Your task to perform on an android device: change timer sound Image 0: 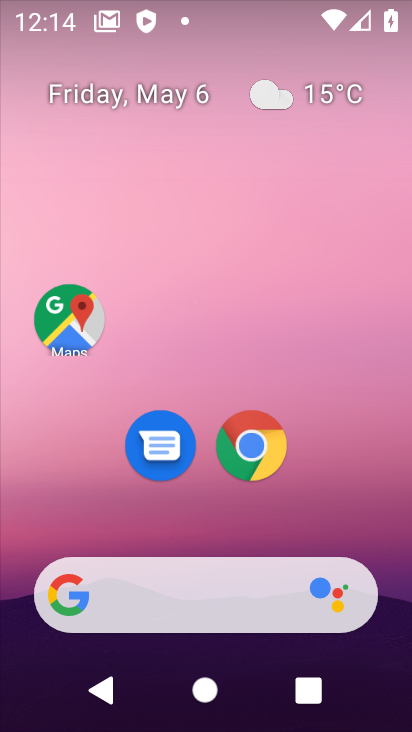
Step 0: drag from (377, 540) to (259, 80)
Your task to perform on an android device: change timer sound Image 1: 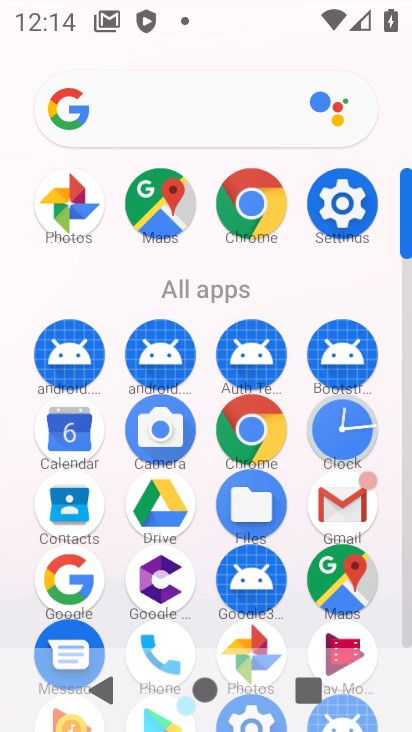
Step 1: click (341, 203)
Your task to perform on an android device: change timer sound Image 2: 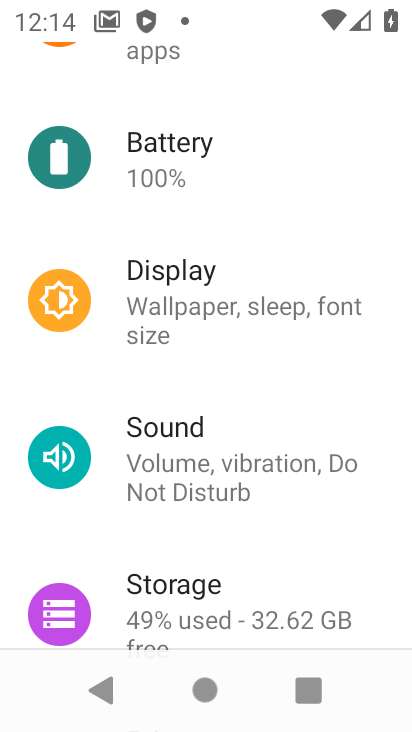
Step 2: press home button
Your task to perform on an android device: change timer sound Image 3: 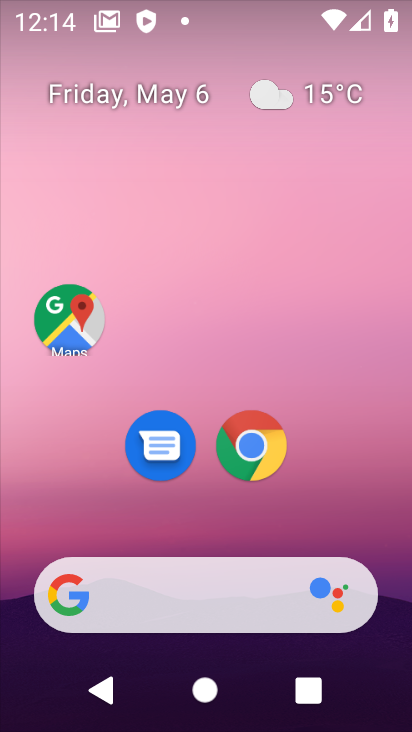
Step 3: drag from (368, 531) to (259, 66)
Your task to perform on an android device: change timer sound Image 4: 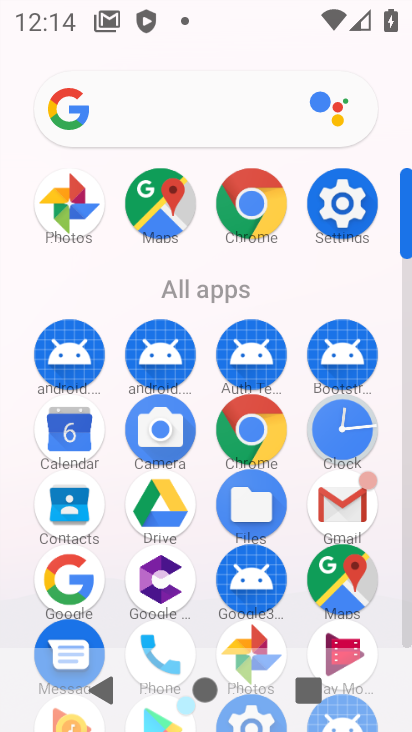
Step 4: click (336, 430)
Your task to perform on an android device: change timer sound Image 5: 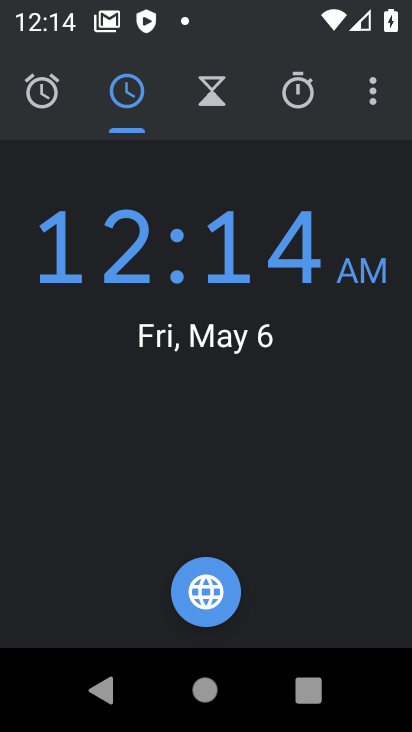
Step 5: click (367, 96)
Your task to perform on an android device: change timer sound Image 6: 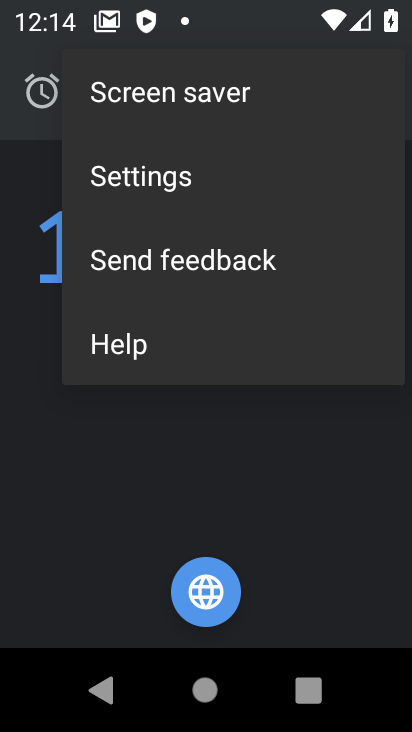
Step 6: click (182, 178)
Your task to perform on an android device: change timer sound Image 7: 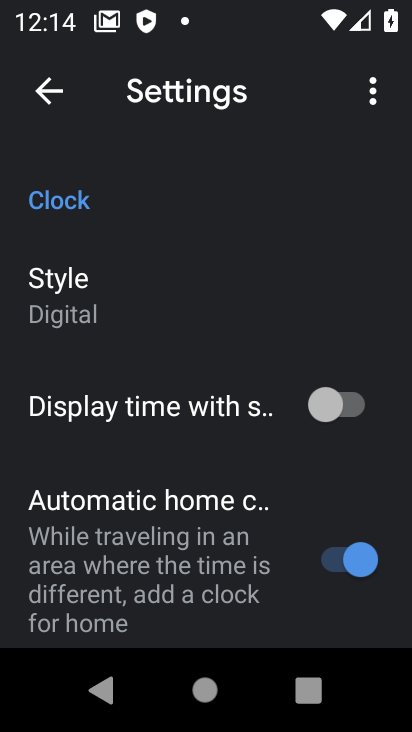
Step 7: drag from (277, 562) to (202, 264)
Your task to perform on an android device: change timer sound Image 8: 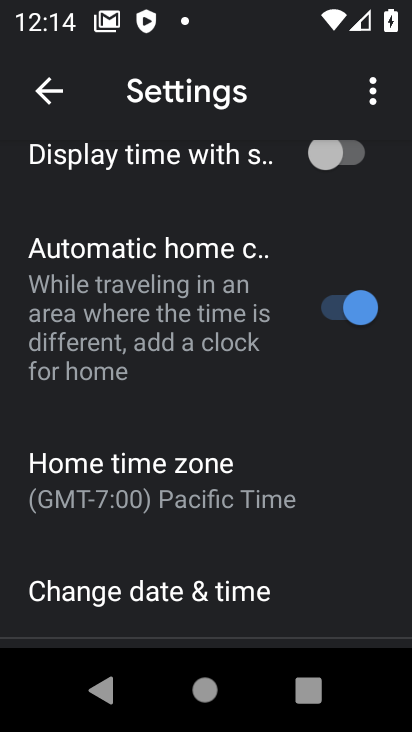
Step 8: drag from (242, 509) to (180, 205)
Your task to perform on an android device: change timer sound Image 9: 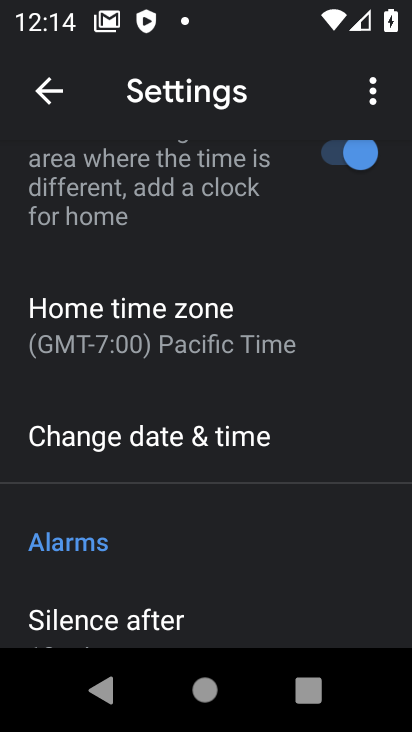
Step 9: drag from (223, 523) to (179, 138)
Your task to perform on an android device: change timer sound Image 10: 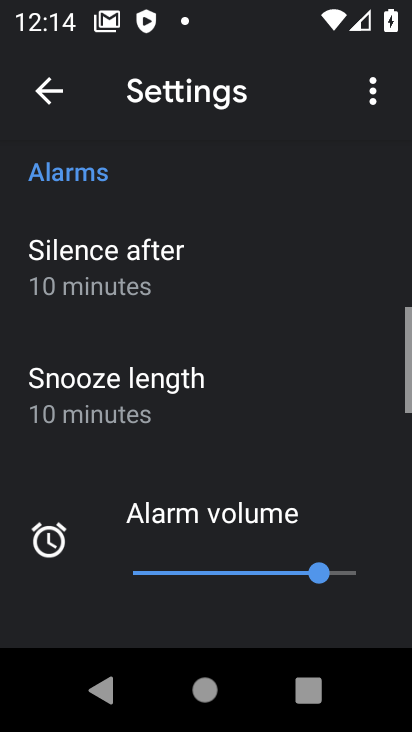
Step 10: drag from (305, 492) to (246, 127)
Your task to perform on an android device: change timer sound Image 11: 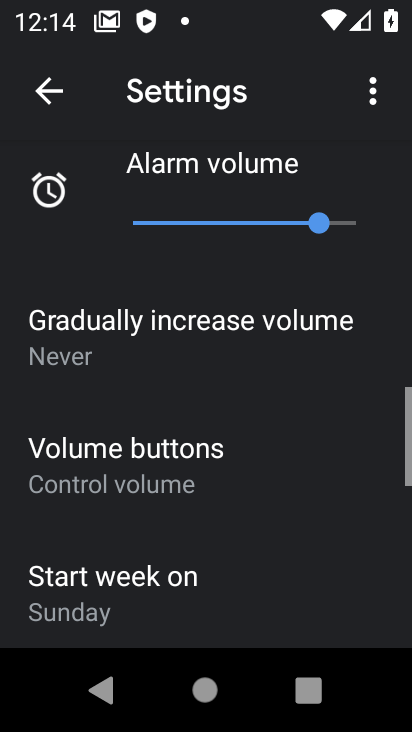
Step 11: drag from (178, 360) to (138, 37)
Your task to perform on an android device: change timer sound Image 12: 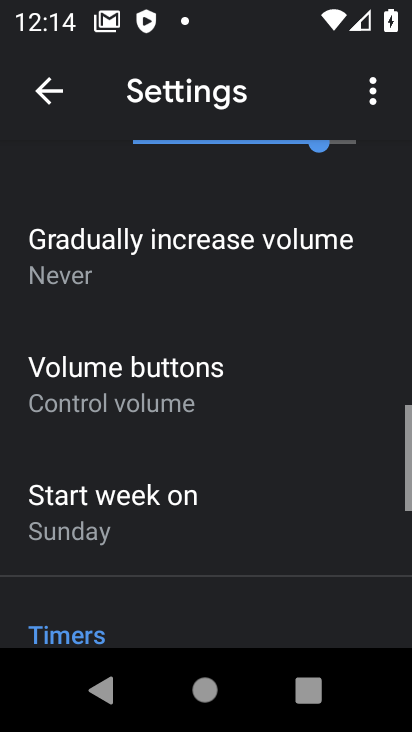
Step 12: drag from (212, 492) to (158, 113)
Your task to perform on an android device: change timer sound Image 13: 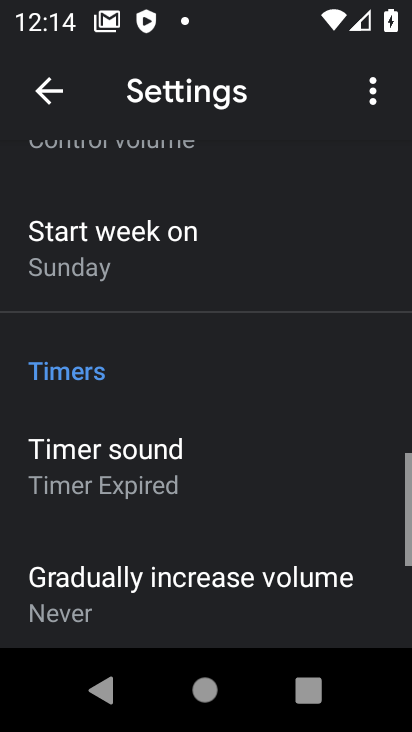
Step 13: drag from (201, 496) to (154, 187)
Your task to perform on an android device: change timer sound Image 14: 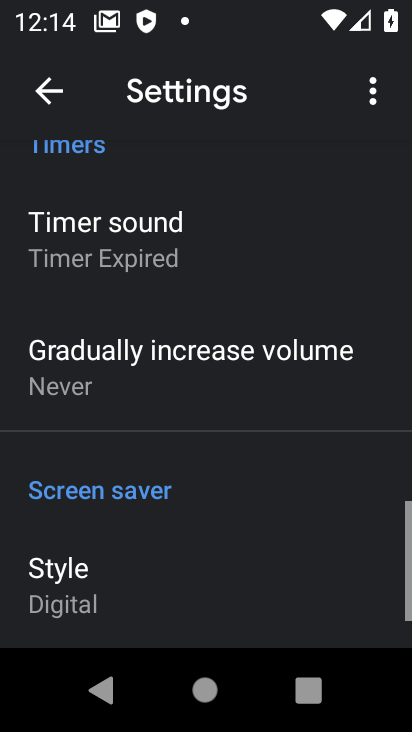
Step 14: drag from (174, 485) to (114, 192)
Your task to perform on an android device: change timer sound Image 15: 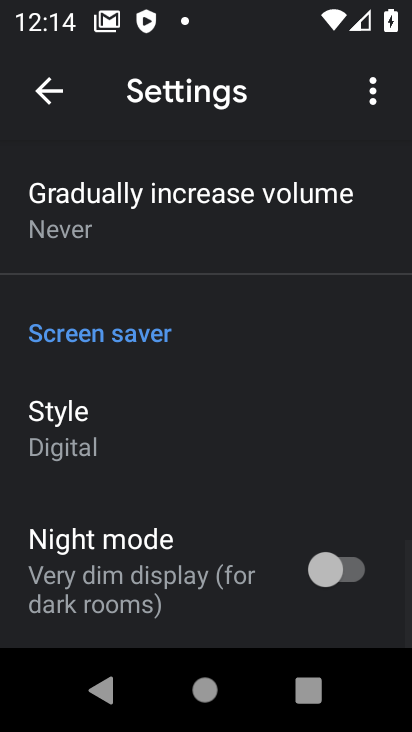
Step 15: drag from (140, 545) to (121, 197)
Your task to perform on an android device: change timer sound Image 16: 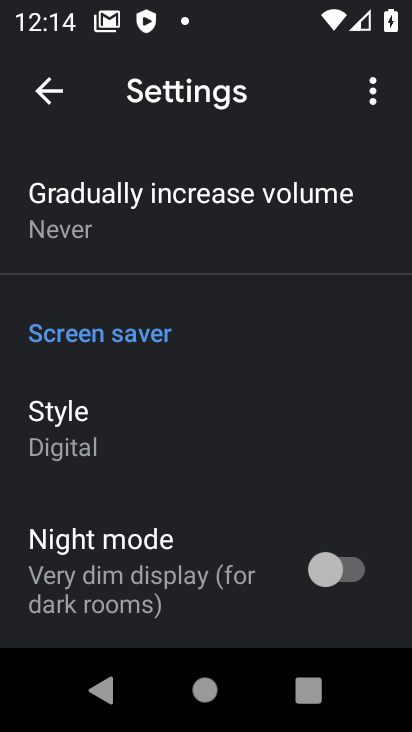
Step 16: drag from (209, 551) to (183, 228)
Your task to perform on an android device: change timer sound Image 17: 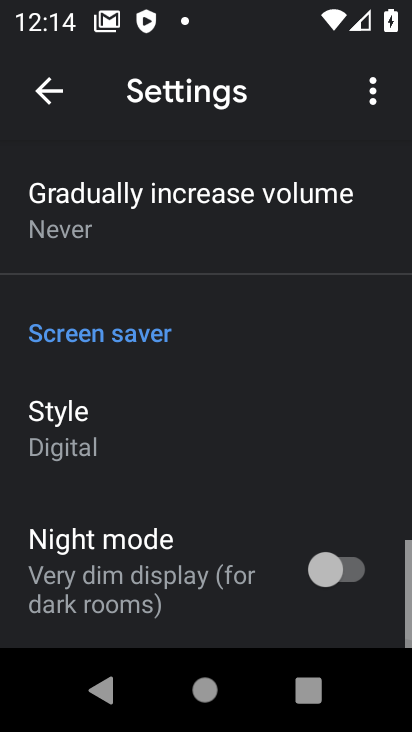
Step 17: drag from (259, 604) to (201, 118)
Your task to perform on an android device: change timer sound Image 18: 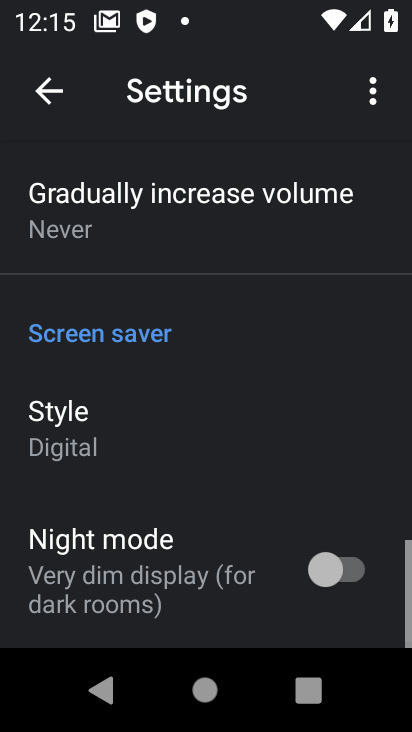
Step 18: drag from (161, 536) to (145, 202)
Your task to perform on an android device: change timer sound Image 19: 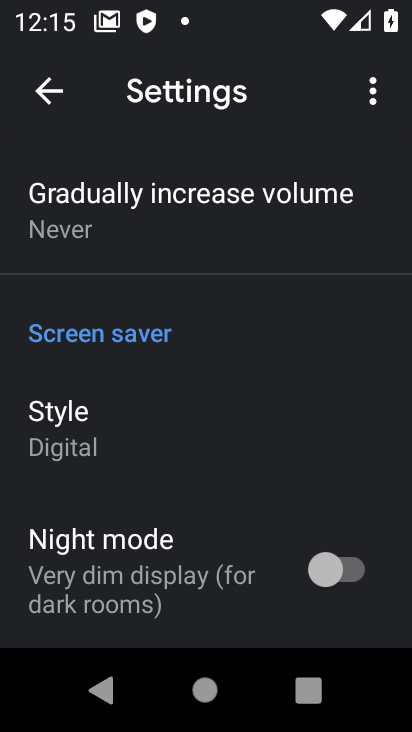
Step 19: drag from (149, 324) to (154, 474)
Your task to perform on an android device: change timer sound Image 20: 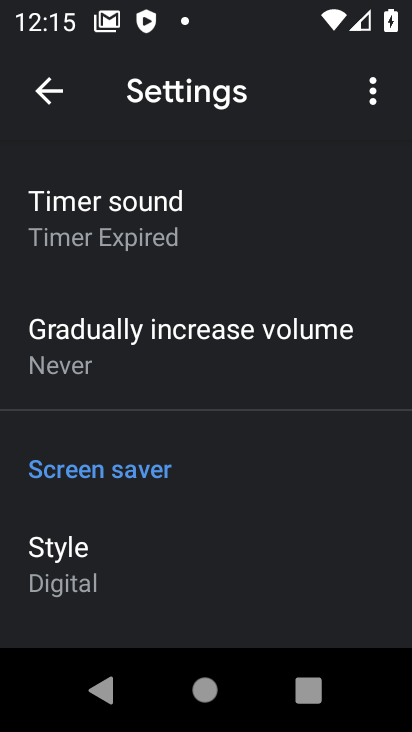
Step 20: click (116, 214)
Your task to perform on an android device: change timer sound Image 21: 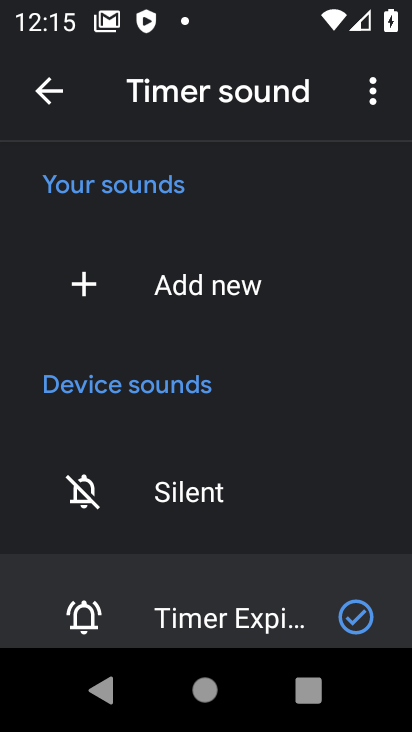
Step 21: click (162, 495)
Your task to perform on an android device: change timer sound Image 22: 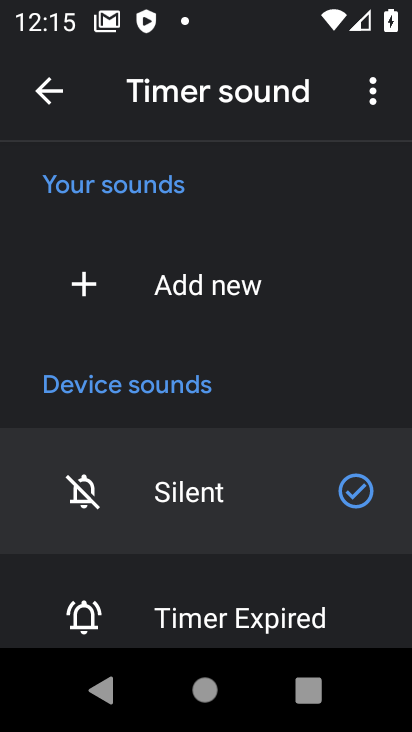
Step 22: drag from (285, 504) to (273, 134)
Your task to perform on an android device: change timer sound Image 23: 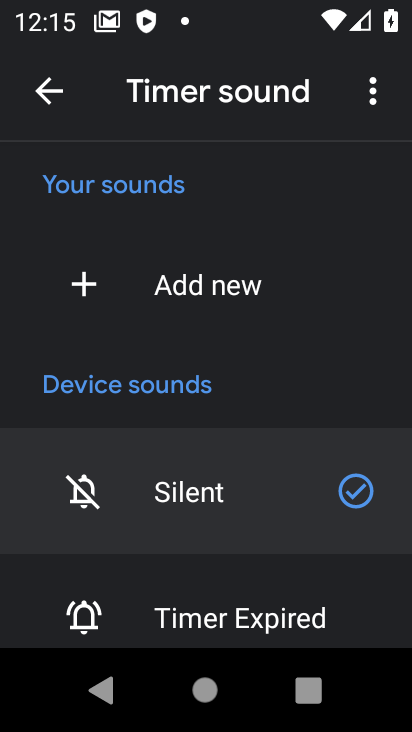
Step 23: click (354, 497)
Your task to perform on an android device: change timer sound Image 24: 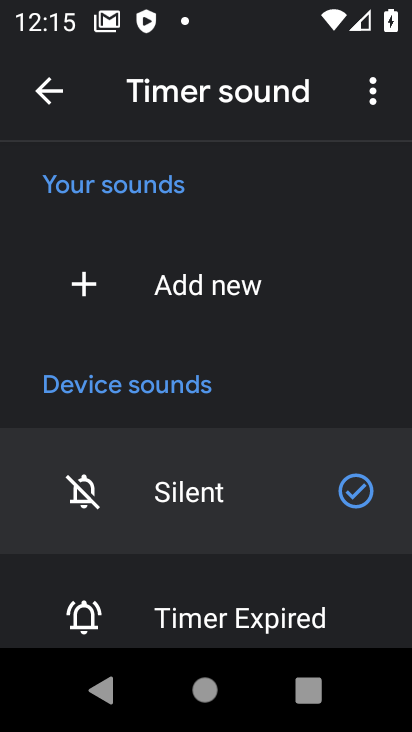
Step 24: click (149, 183)
Your task to perform on an android device: change timer sound Image 25: 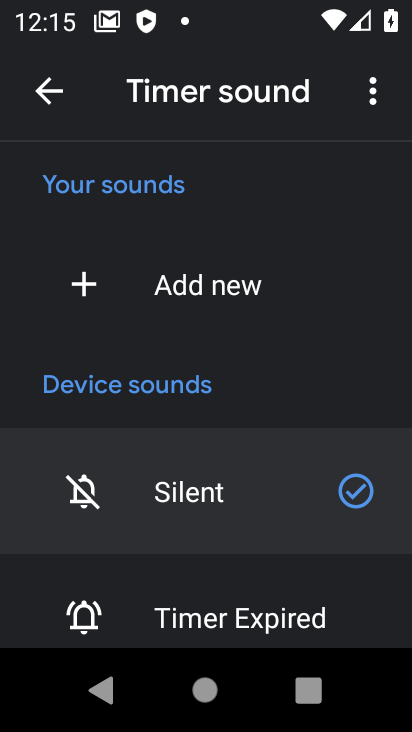
Step 25: drag from (158, 233) to (77, 37)
Your task to perform on an android device: change timer sound Image 26: 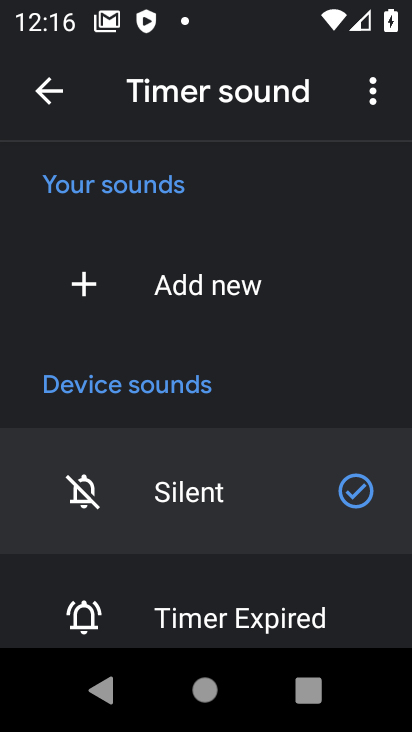
Step 26: click (81, 607)
Your task to perform on an android device: change timer sound Image 27: 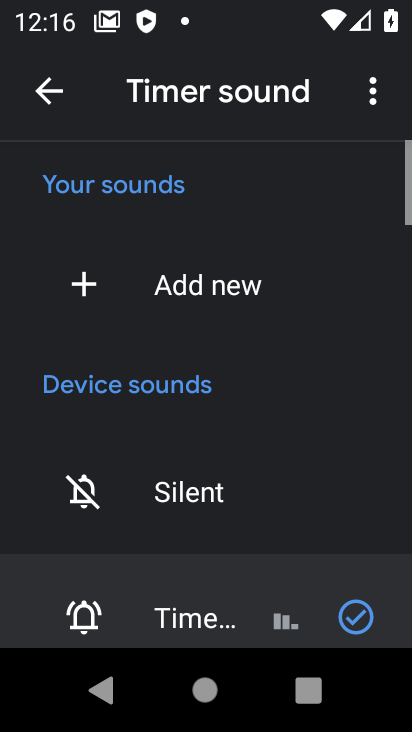
Step 27: click (90, 606)
Your task to perform on an android device: change timer sound Image 28: 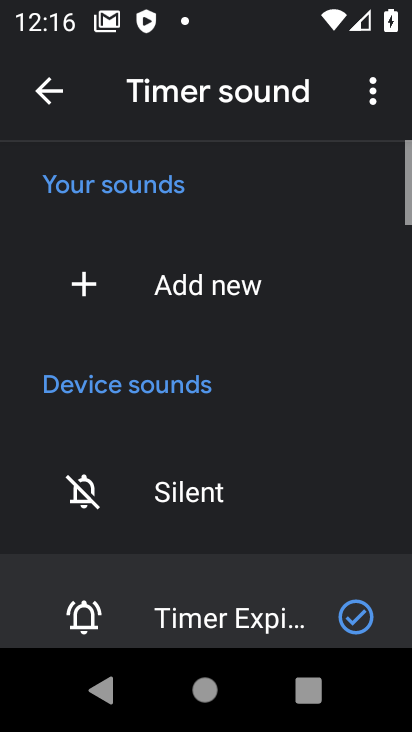
Step 28: click (90, 607)
Your task to perform on an android device: change timer sound Image 29: 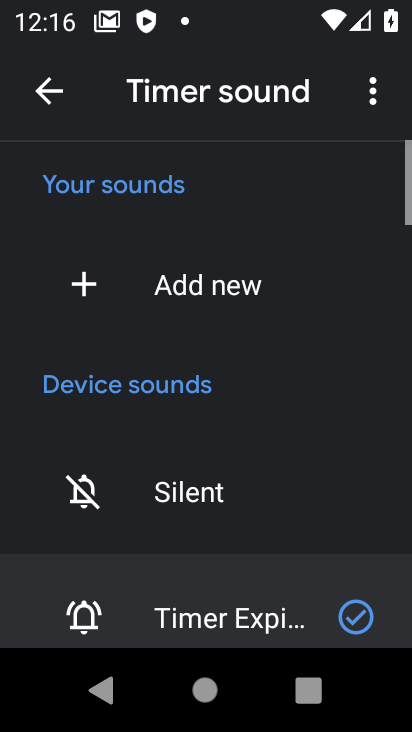
Step 29: drag from (62, 247) to (74, 191)
Your task to perform on an android device: change timer sound Image 30: 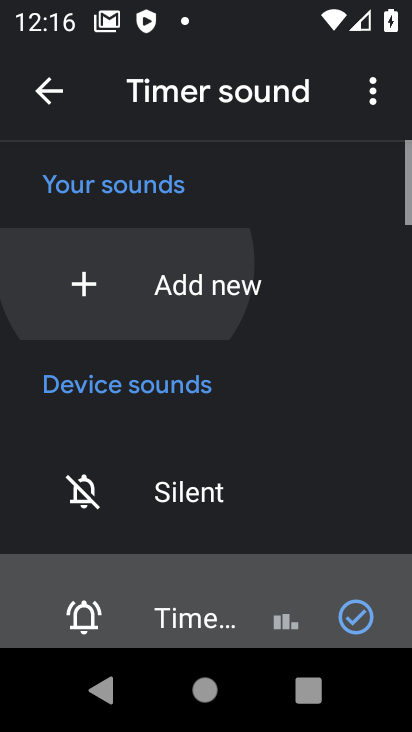
Step 30: drag from (254, 499) to (276, 192)
Your task to perform on an android device: change timer sound Image 31: 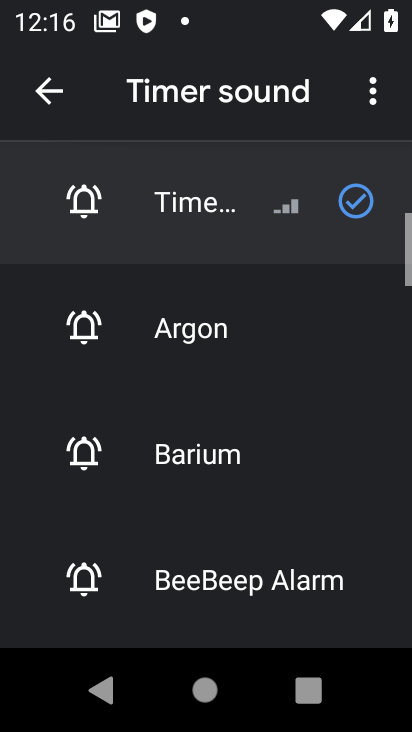
Step 31: drag from (212, 122) to (208, 81)
Your task to perform on an android device: change timer sound Image 32: 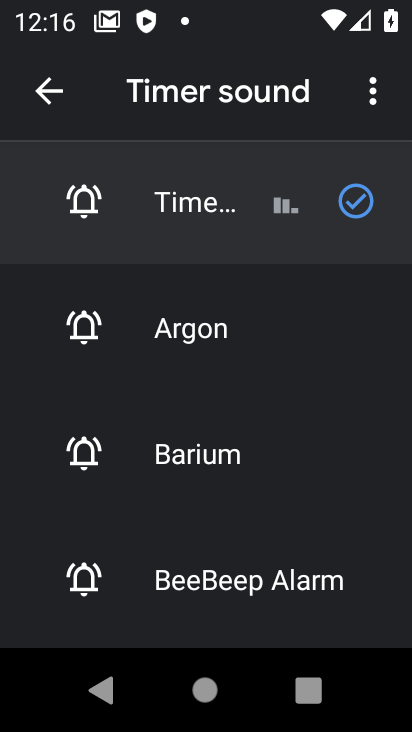
Step 32: click (78, 445)
Your task to perform on an android device: change timer sound Image 33: 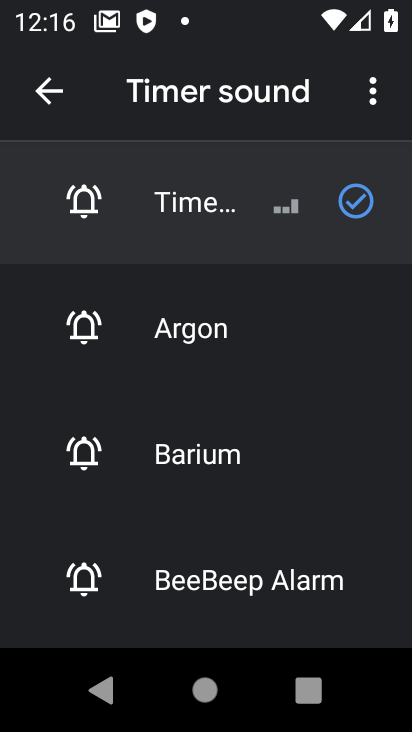
Step 33: click (79, 461)
Your task to perform on an android device: change timer sound Image 34: 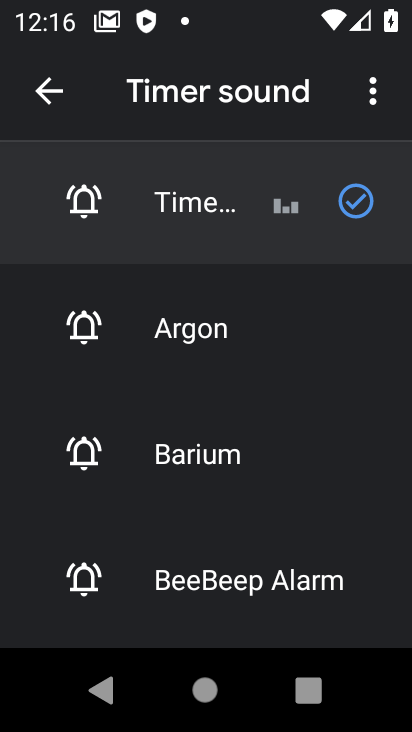
Step 34: click (78, 459)
Your task to perform on an android device: change timer sound Image 35: 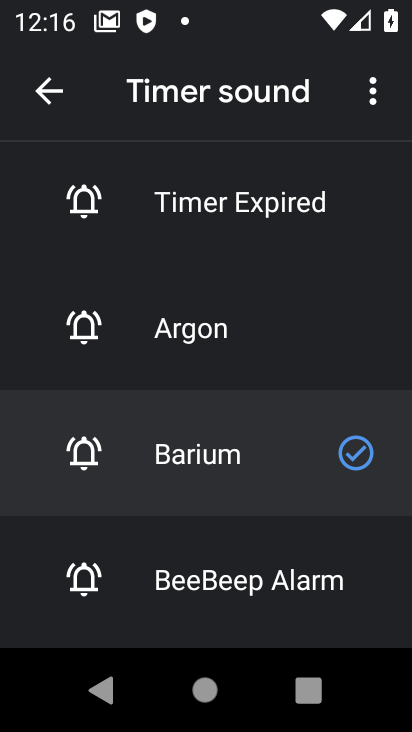
Step 35: task complete